Your task to perform on an android device: add a contact in the contacts app Image 0: 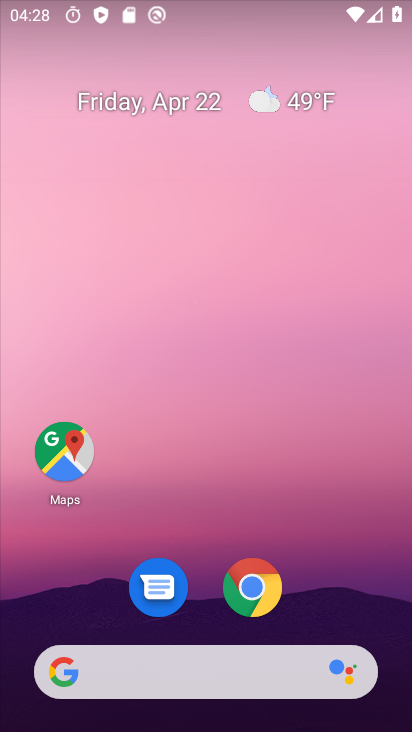
Step 0: drag from (357, 618) to (390, 10)
Your task to perform on an android device: add a contact in the contacts app Image 1: 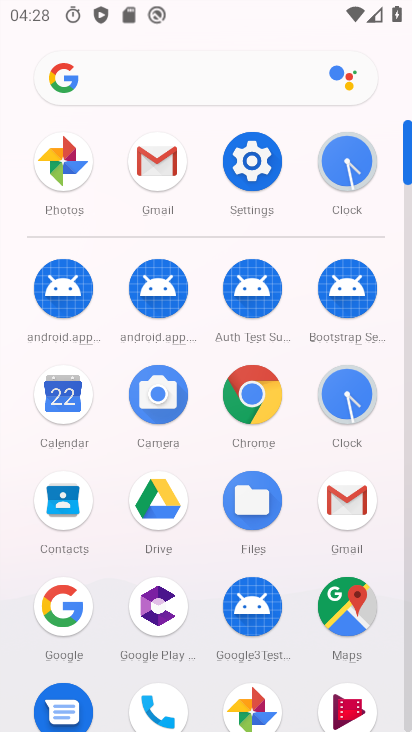
Step 1: click (65, 505)
Your task to perform on an android device: add a contact in the contacts app Image 2: 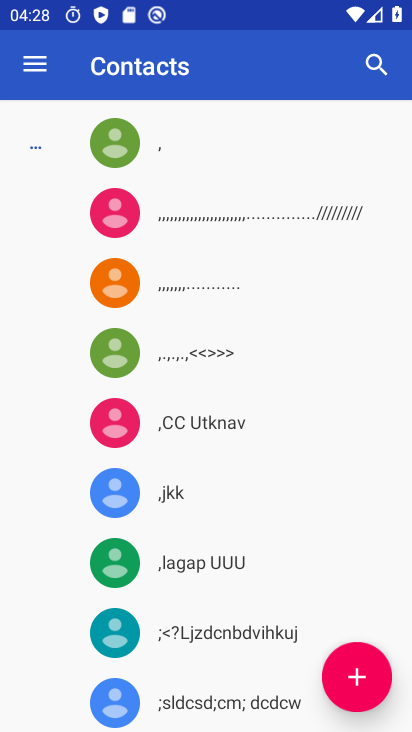
Step 2: click (354, 679)
Your task to perform on an android device: add a contact in the contacts app Image 3: 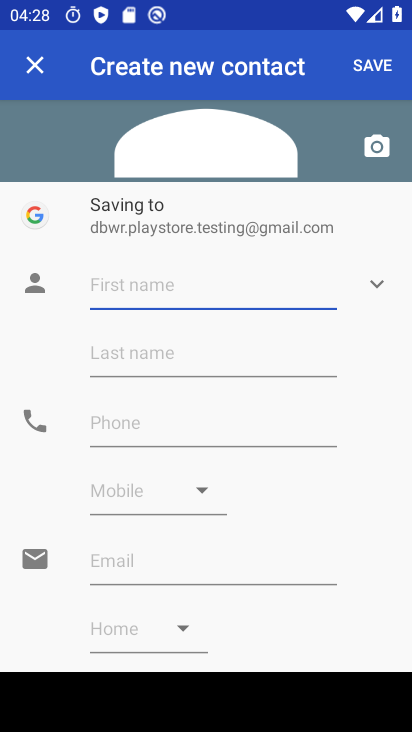
Step 3: click (140, 287)
Your task to perform on an android device: add a contact in the contacts app Image 4: 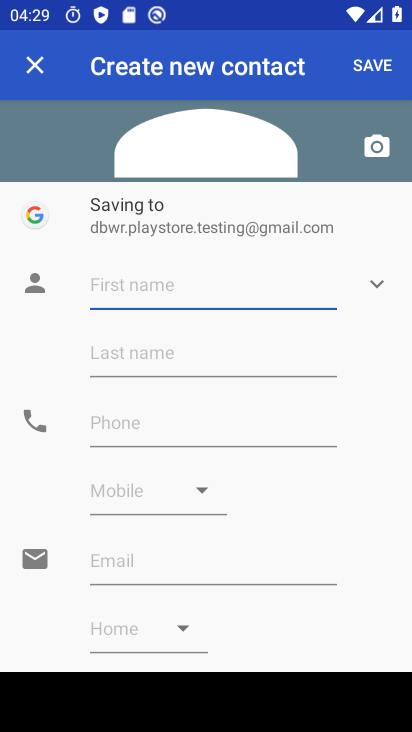
Step 4: type "gimi"
Your task to perform on an android device: add a contact in the contacts app Image 5: 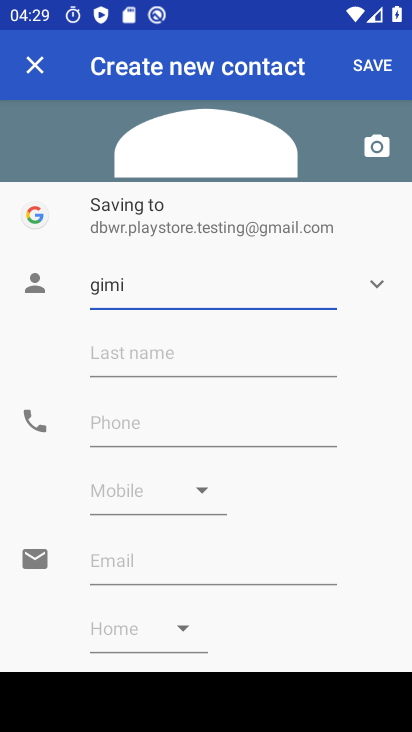
Step 5: click (233, 414)
Your task to perform on an android device: add a contact in the contacts app Image 6: 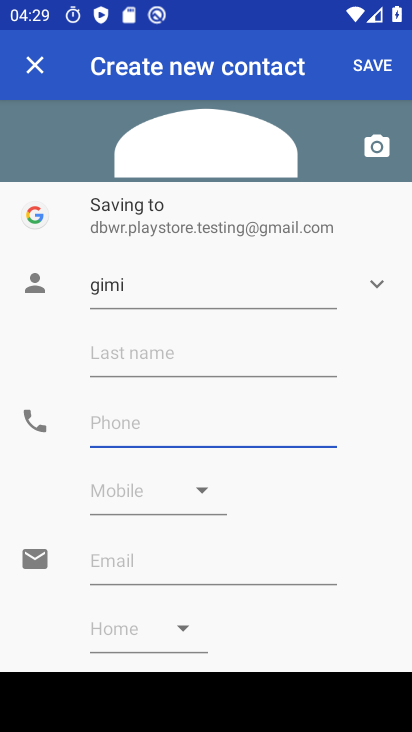
Step 6: type "354657689"
Your task to perform on an android device: add a contact in the contacts app Image 7: 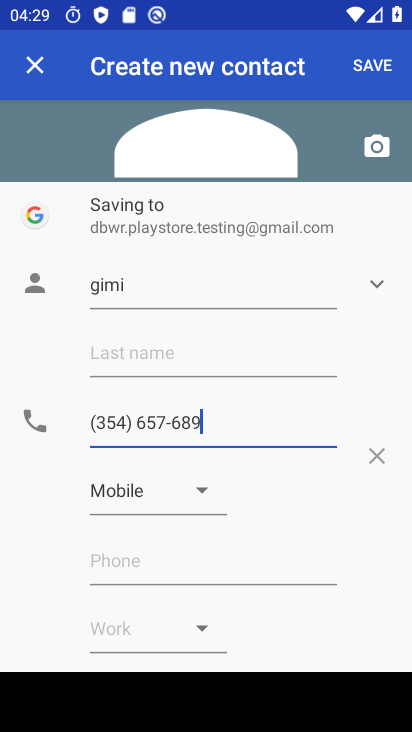
Step 7: click (371, 64)
Your task to perform on an android device: add a contact in the contacts app Image 8: 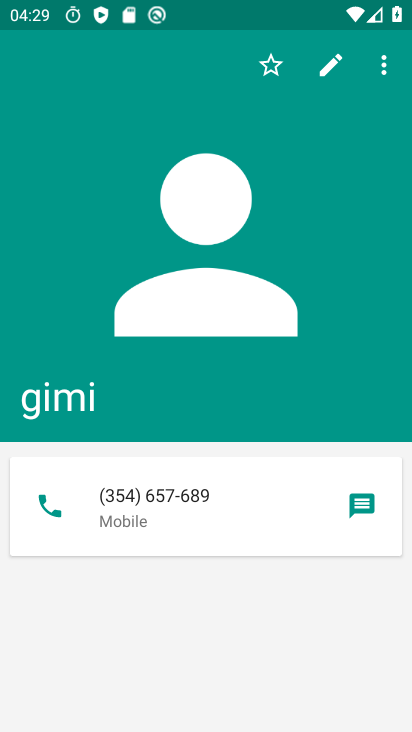
Step 8: task complete